Your task to perform on an android device: find which apps use the phone's location Image 0: 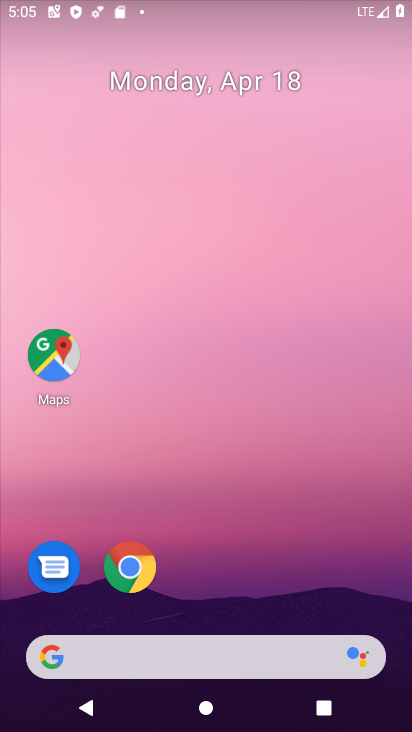
Step 0: drag from (273, 480) to (214, 0)
Your task to perform on an android device: find which apps use the phone's location Image 1: 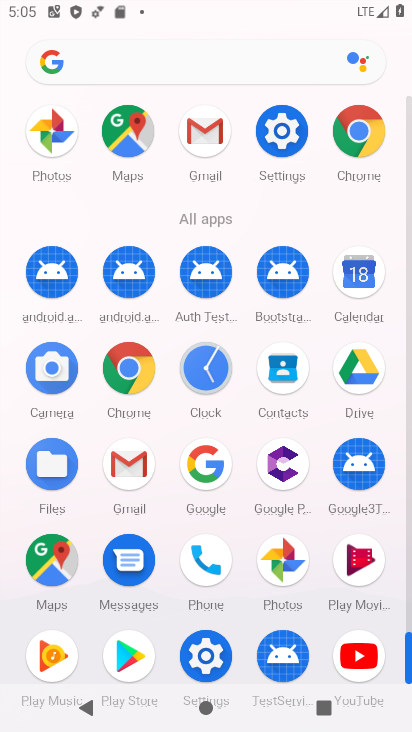
Step 1: click (206, 647)
Your task to perform on an android device: find which apps use the phone's location Image 2: 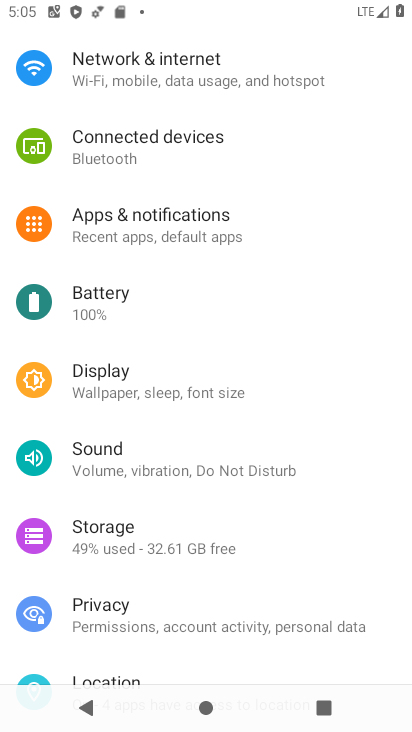
Step 2: drag from (279, 122) to (282, 406)
Your task to perform on an android device: find which apps use the phone's location Image 3: 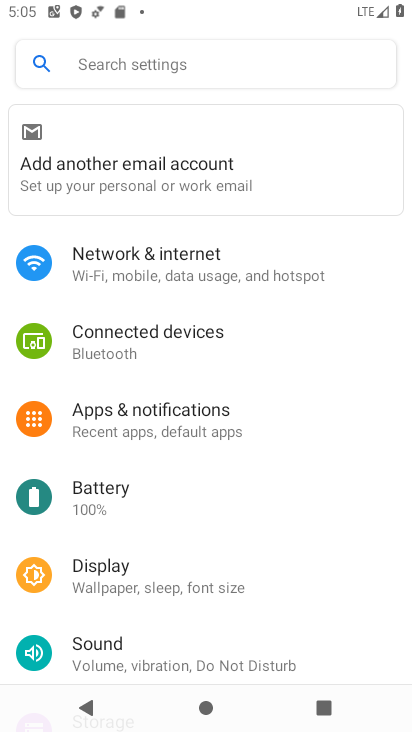
Step 3: drag from (272, 490) to (274, 220)
Your task to perform on an android device: find which apps use the phone's location Image 4: 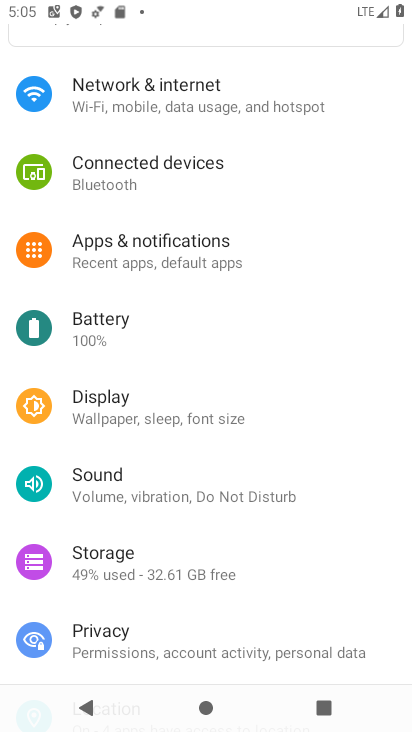
Step 4: drag from (268, 531) to (270, 187)
Your task to perform on an android device: find which apps use the phone's location Image 5: 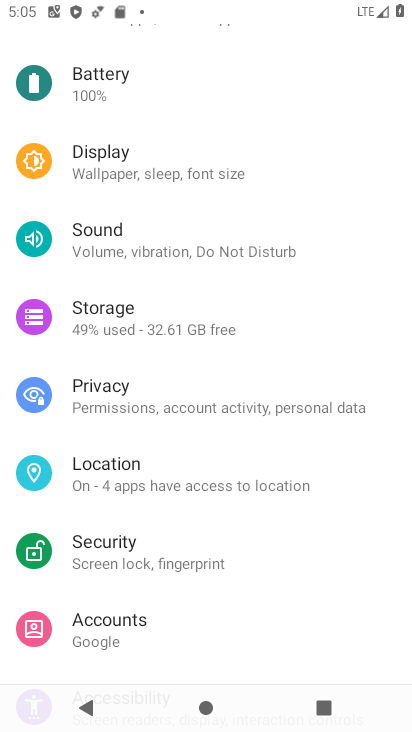
Step 5: click (143, 463)
Your task to perform on an android device: find which apps use the phone's location Image 6: 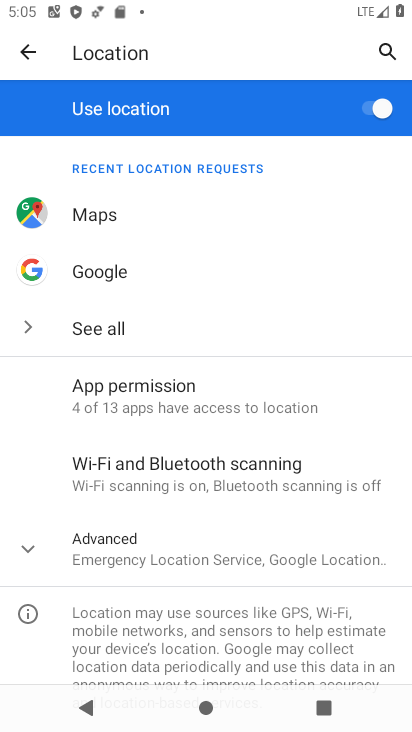
Step 6: click (155, 562)
Your task to perform on an android device: find which apps use the phone's location Image 7: 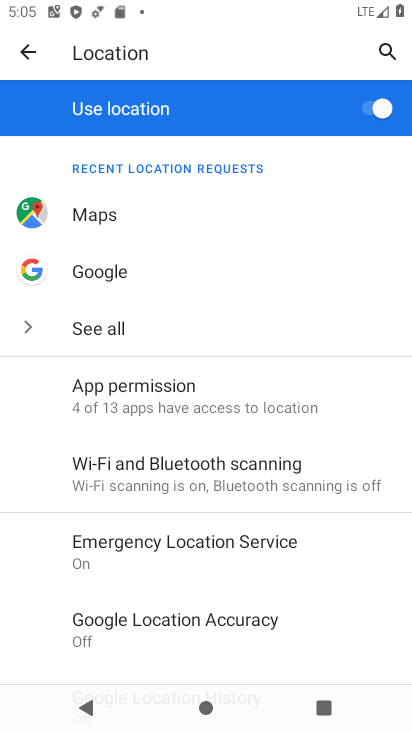
Step 7: click (183, 399)
Your task to perform on an android device: find which apps use the phone's location Image 8: 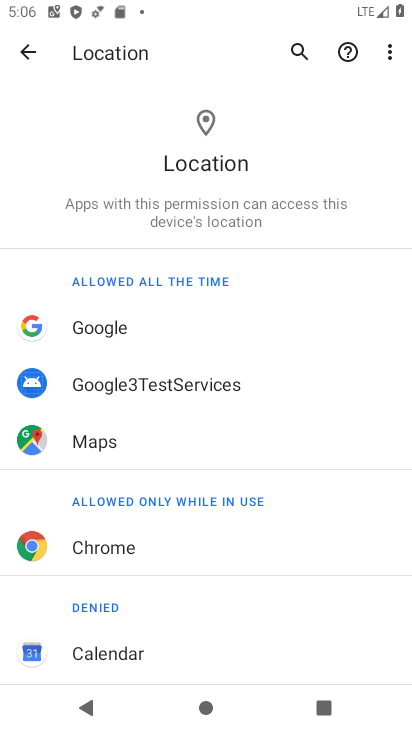
Step 8: task complete